Your task to perform on an android device: Open wifi settings Image 0: 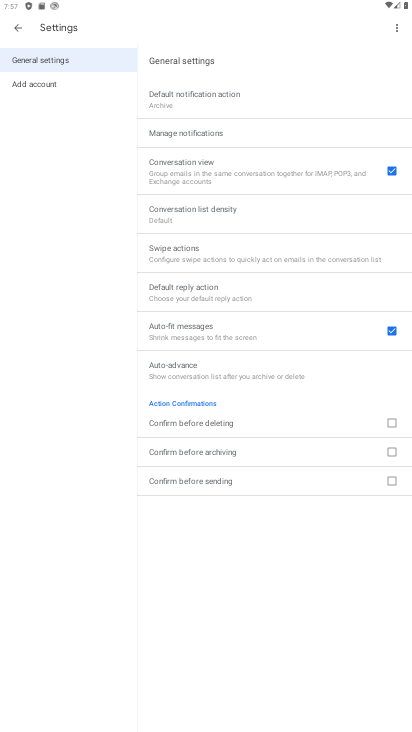
Step 0: press home button
Your task to perform on an android device: Open wifi settings Image 1: 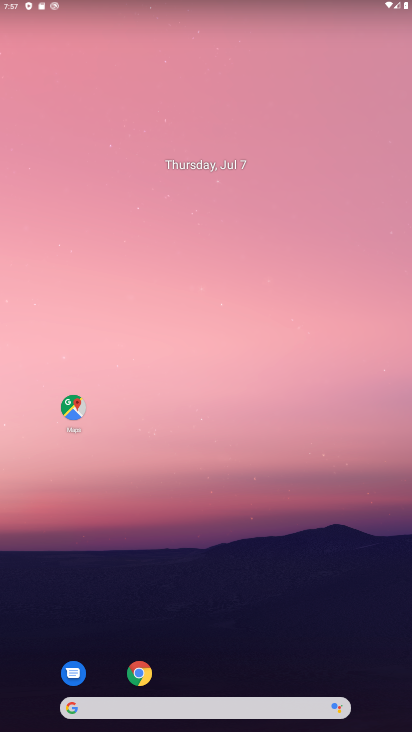
Step 1: drag from (202, 524) to (174, 152)
Your task to perform on an android device: Open wifi settings Image 2: 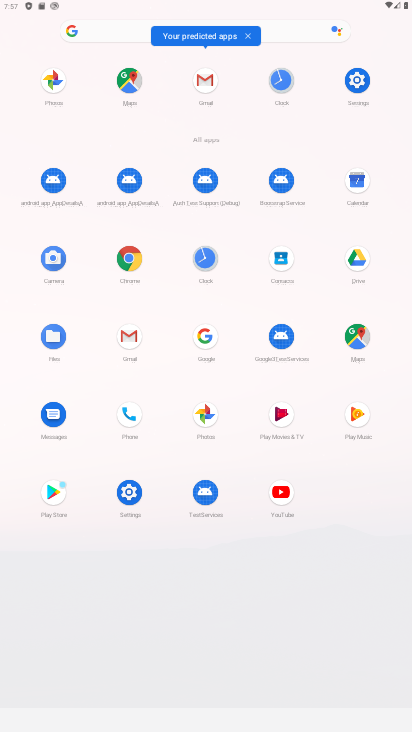
Step 2: click (360, 89)
Your task to perform on an android device: Open wifi settings Image 3: 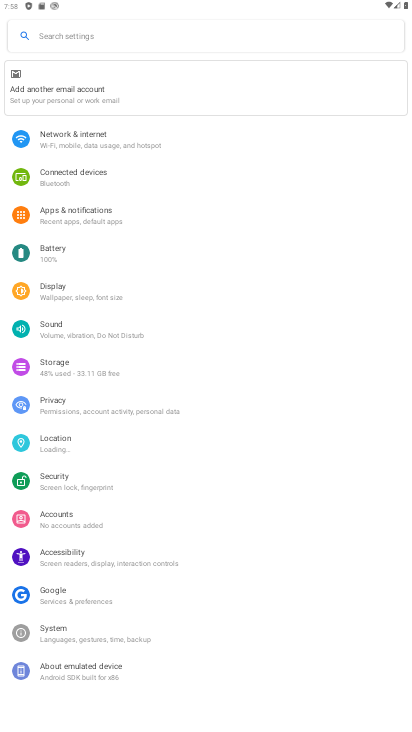
Step 3: click (115, 134)
Your task to perform on an android device: Open wifi settings Image 4: 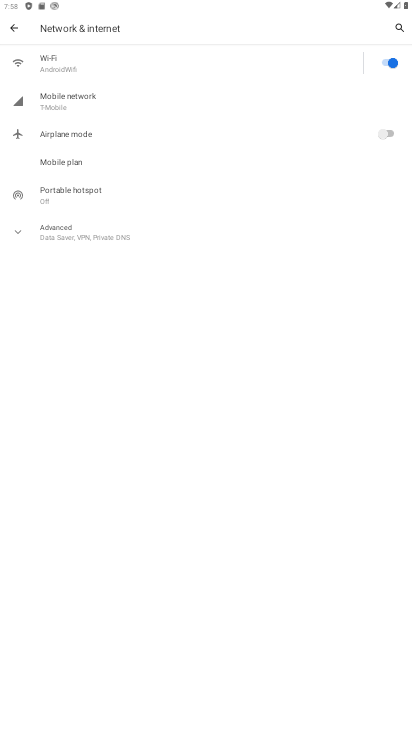
Step 4: click (104, 70)
Your task to perform on an android device: Open wifi settings Image 5: 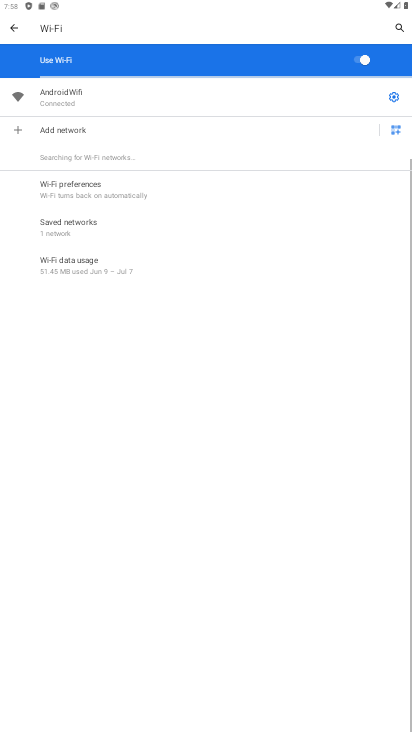
Step 5: task complete